Your task to perform on an android device: Go to display settings Image 0: 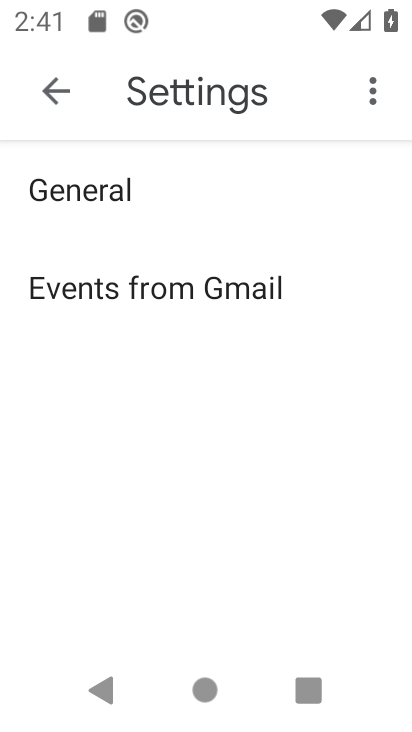
Step 0: drag from (227, 608) to (273, 114)
Your task to perform on an android device: Go to display settings Image 1: 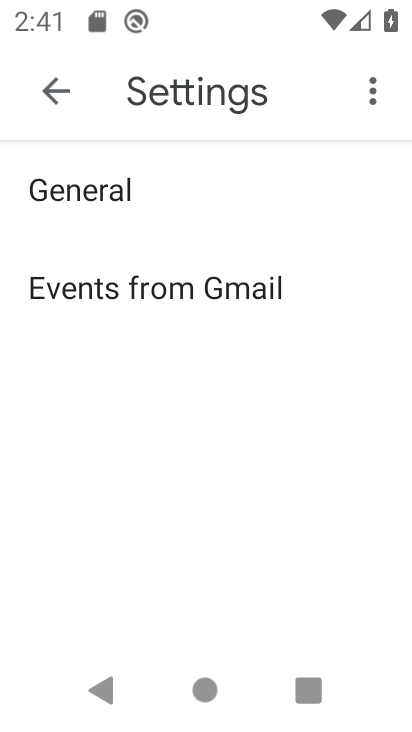
Step 1: press home button
Your task to perform on an android device: Go to display settings Image 2: 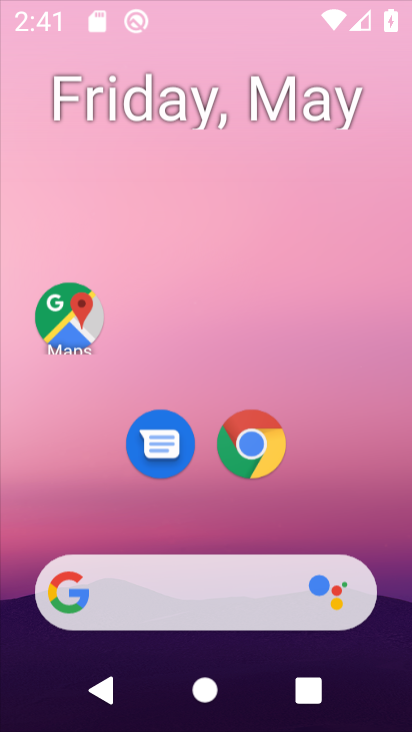
Step 2: drag from (180, 545) to (214, 66)
Your task to perform on an android device: Go to display settings Image 3: 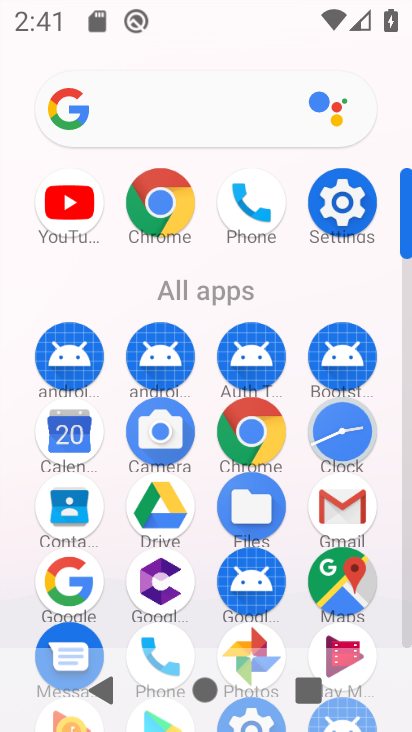
Step 3: click (360, 201)
Your task to perform on an android device: Go to display settings Image 4: 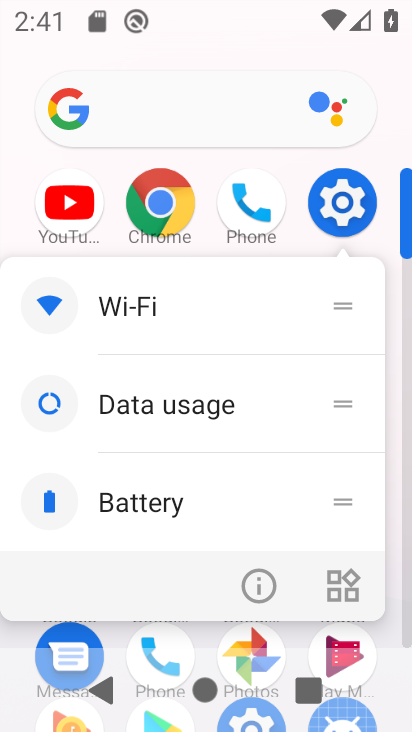
Step 4: click (265, 596)
Your task to perform on an android device: Go to display settings Image 5: 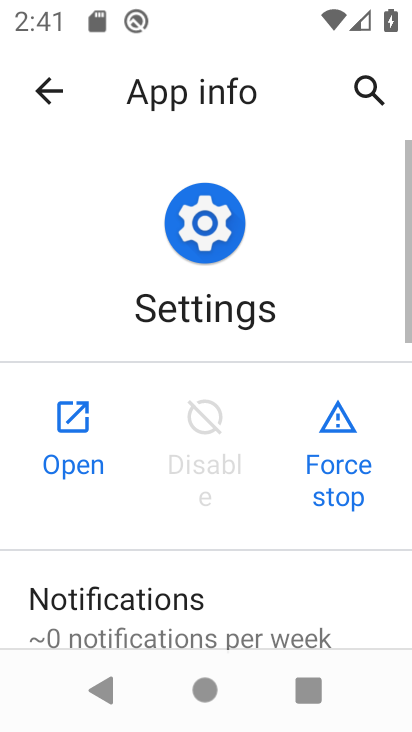
Step 5: click (62, 416)
Your task to perform on an android device: Go to display settings Image 6: 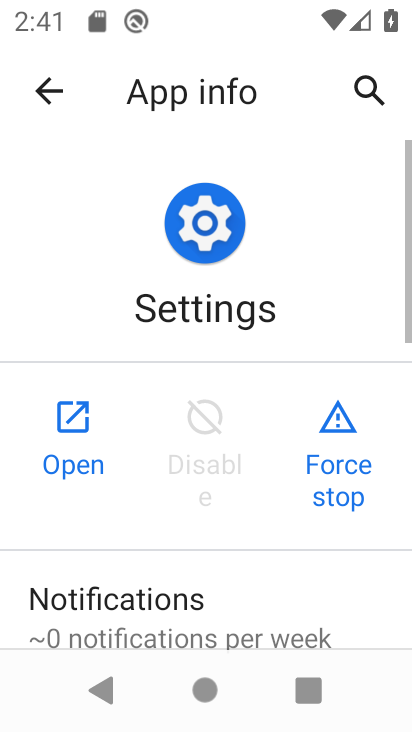
Step 6: click (62, 416)
Your task to perform on an android device: Go to display settings Image 7: 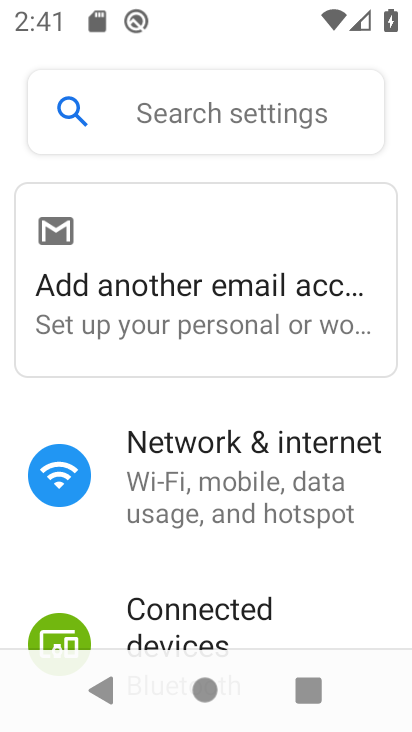
Step 7: drag from (247, 601) to (367, 181)
Your task to perform on an android device: Go to display settings Image 8: 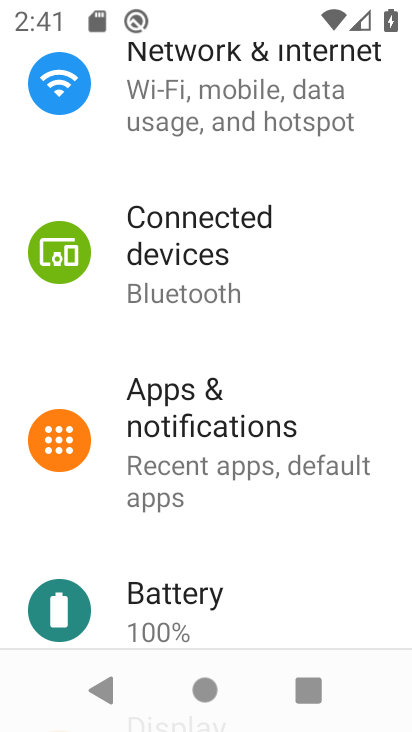
Step 8: drag from (229, 602) to (333, 78)
Your task to perform on an android device: Go to display settings Image 9: 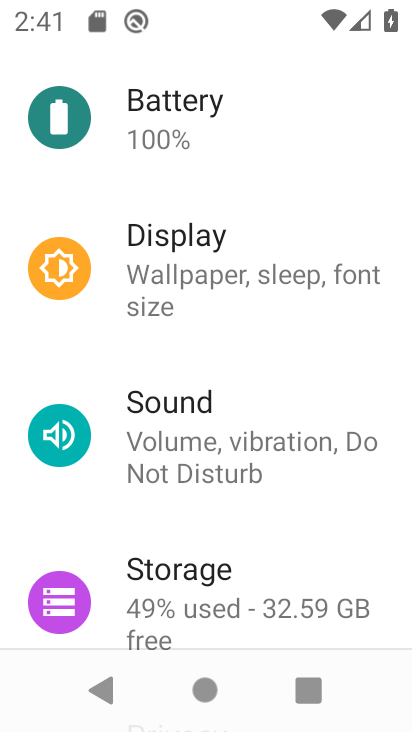
Step 9: drag from (216, 572) to (269, 109)
Your task to perform on an android device: Go to display settings Image 10: 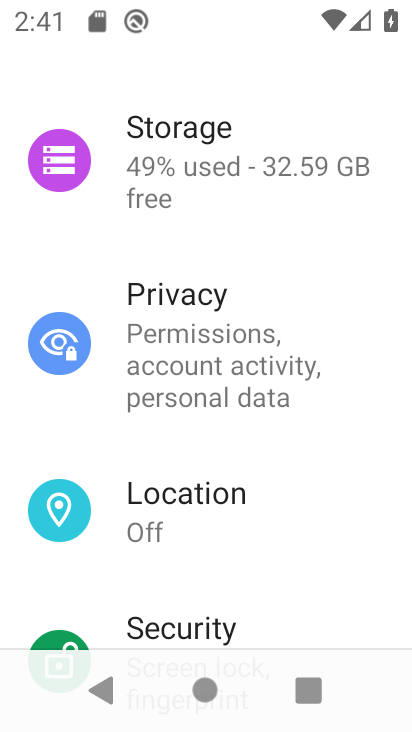
Step 10: drag from (194, 589) to (257, 149)
Your task to perform on an android device: Go to display settings Image 11: 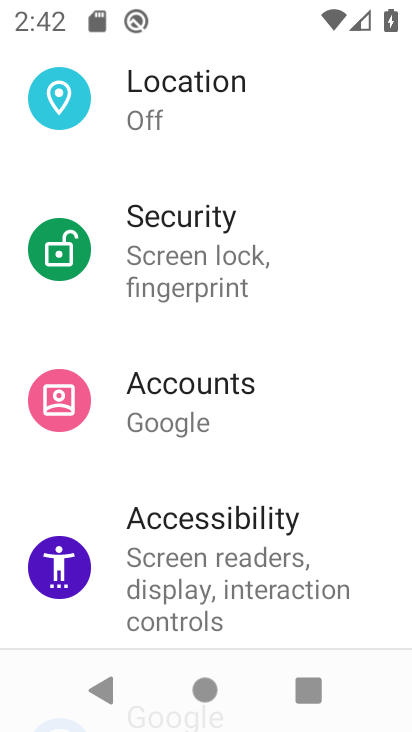
Step 11: drag from (220, 452) to (285, 92)
Your task to perform on an android device: Go to display settings Image 12: 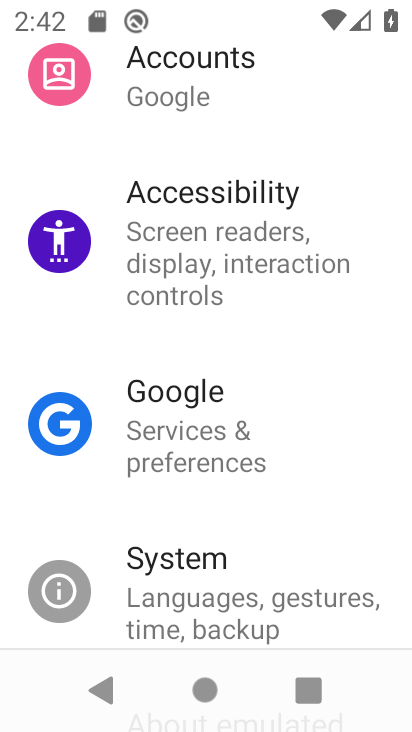
Step 12: drag from (258, 170) to (243, 725)
Your task to perform on an android device: Go to display settings Image 13: 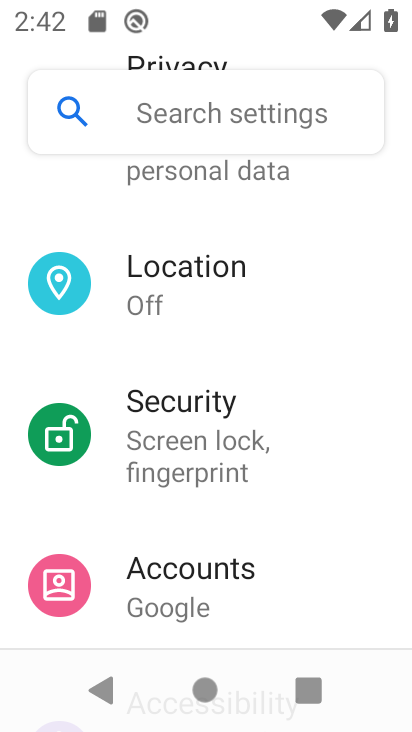
Step 13: drag from (244, 205) to (250, 723)
Your task to perform on an android device: Go to display settings Image 14: 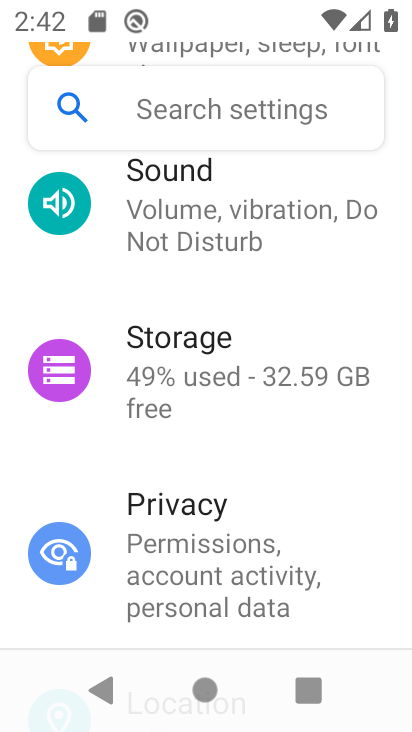
Step 14: drag from (231, 297) to (258, 663)
Your task to perform on an android device: Go to display settings Image 15: 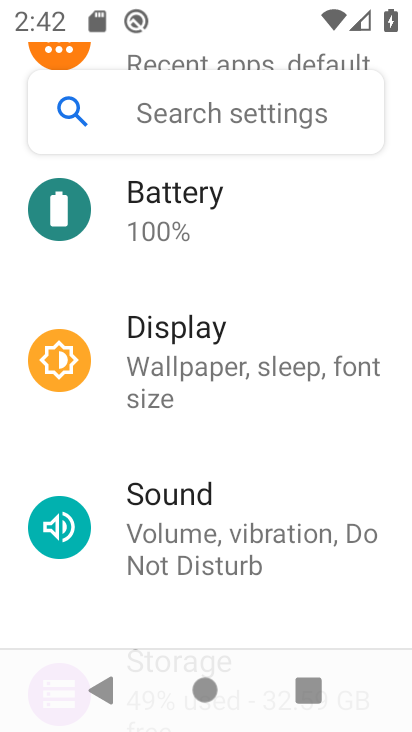
Step 15: click (145, 368)
Your task to perform on an android device: Go to display settings Image 16: 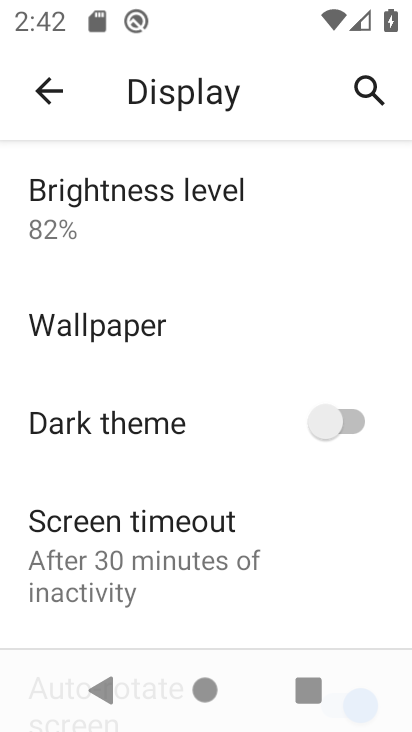
Step 16: task complete